Your task to perform on an android device: Show the shopping cart on bestbuy. Search for "usb-a" on bestbuy, select the first entry, add it to the cart, then select checkout. Image 0: 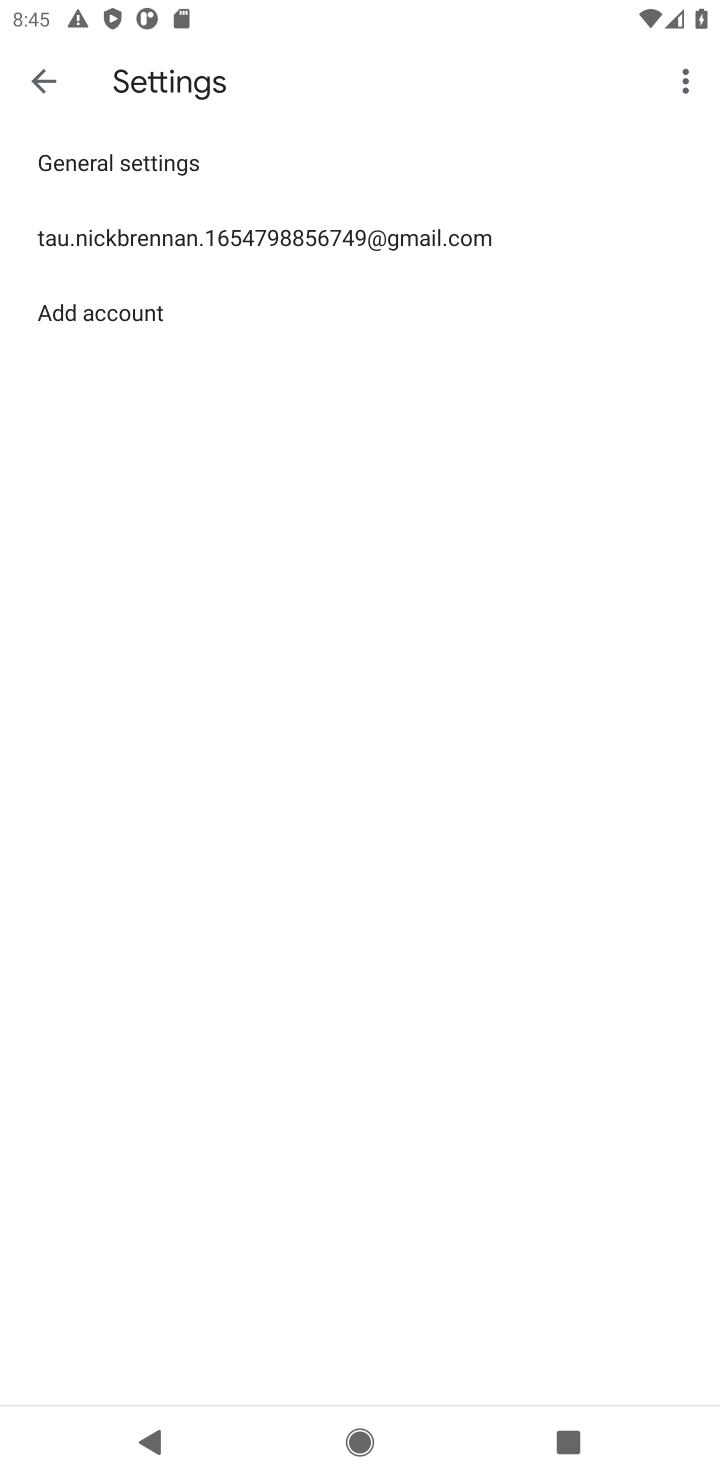
Step 0: press home button
Your task to perform on an android device: Show the shopping cart on bestbuy. Search for "usb-a" on bestbuy, select the first entry, add it to the cart, then select checkout. Image 1: 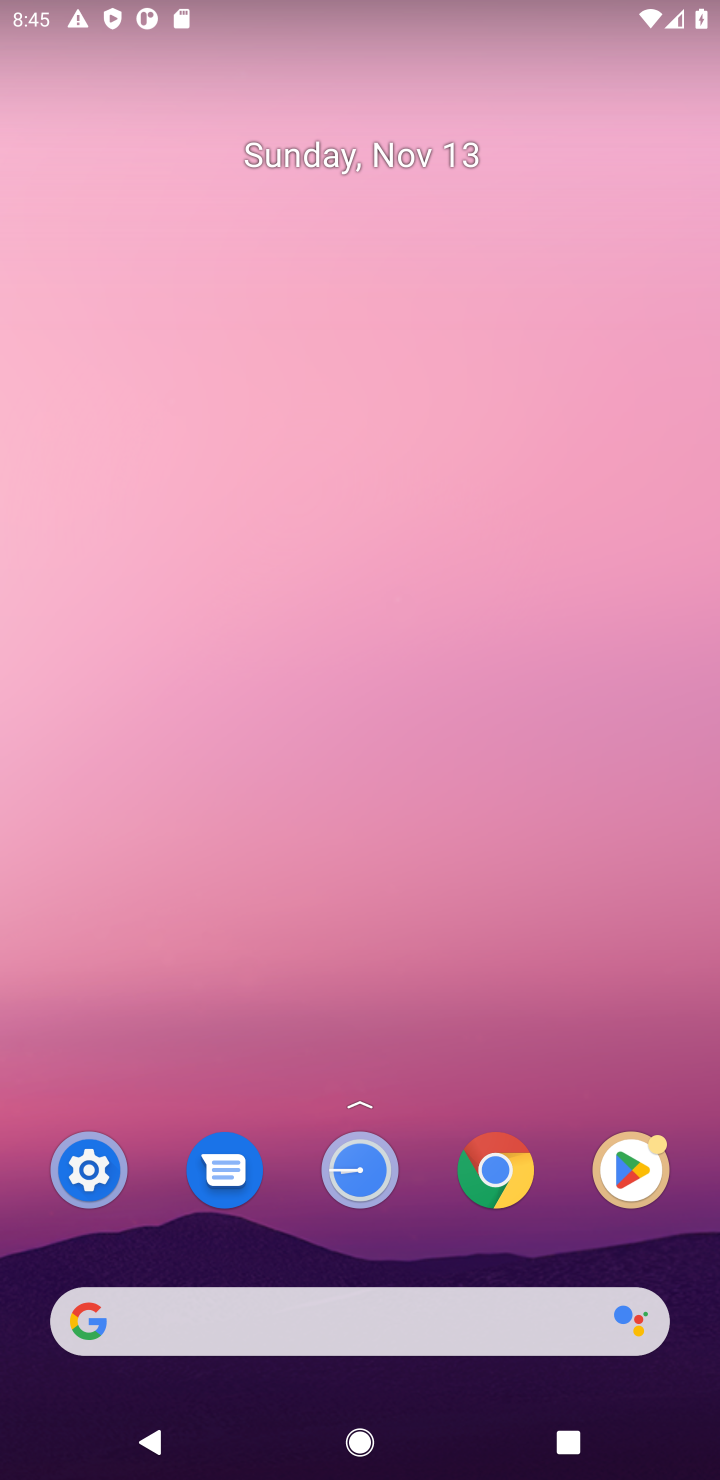
Step 1: click (318, 1326)
Your task to perform on an android device: Show the shopping cart on bestbuy. Search for "usb-a" on bestbuy, select the first entry, add it to the cart, then select checkout. Image 2: 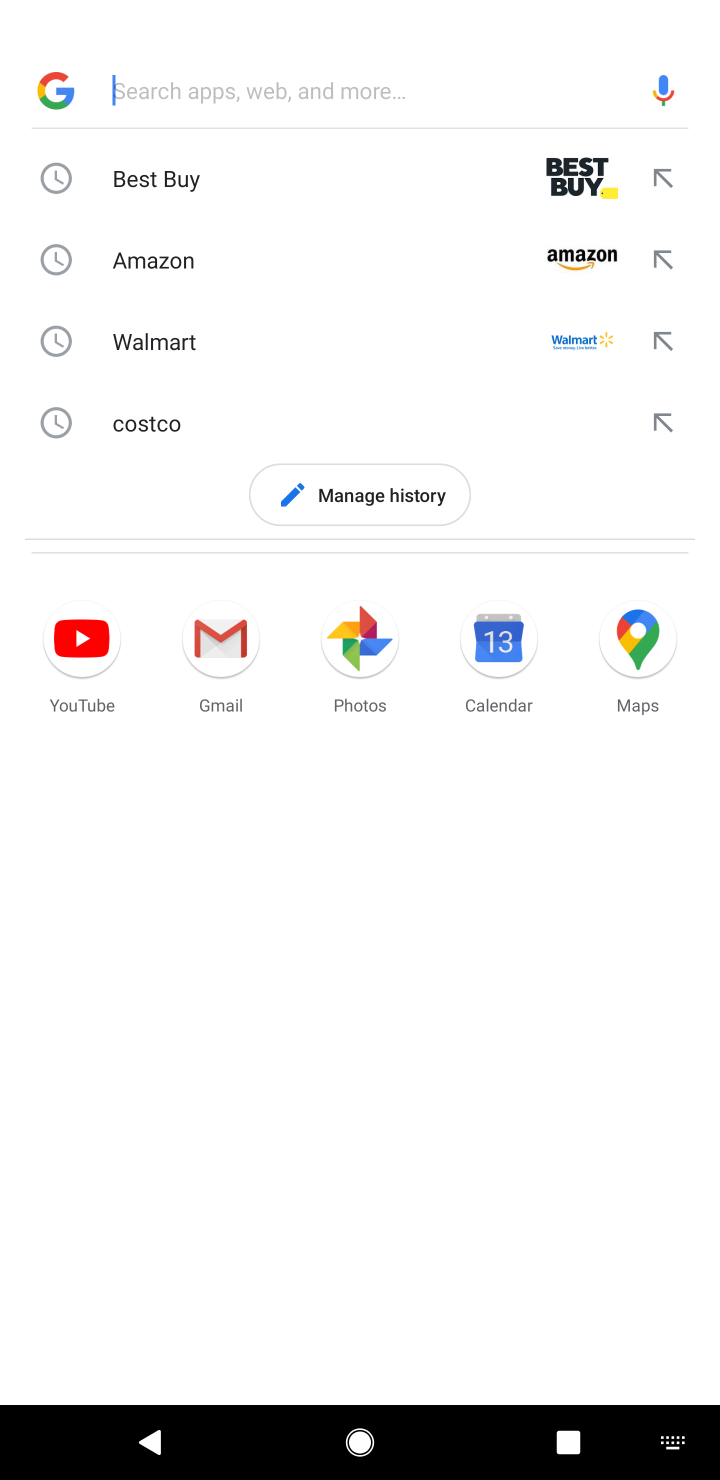
Step 2: click (251, 172)
Your task to perform on an android device: Show the shopping cart on bestbuy. Search for "usb-a" on bestbuy, select the first entry, add it to the cart, then select checkout. Image 3: 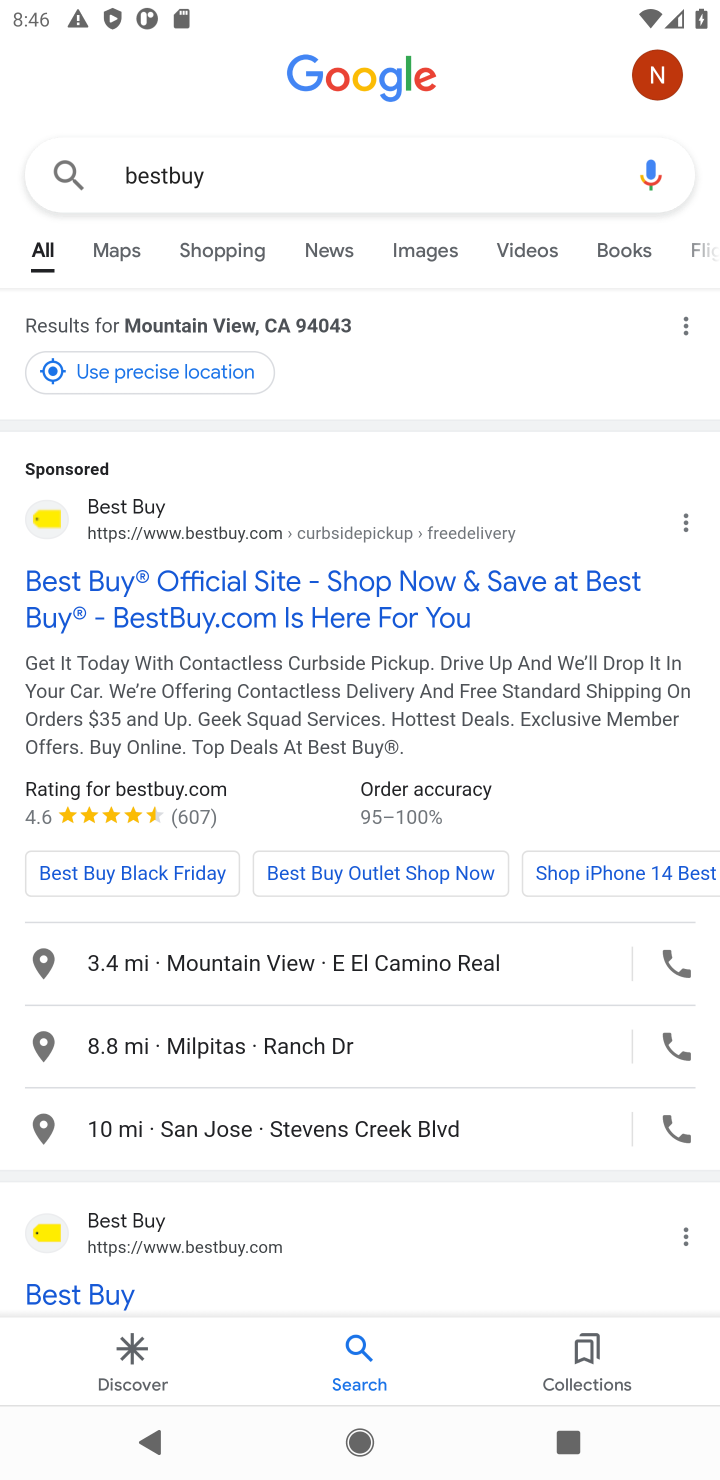
Step 3: click (116, 605)
Your task to perform on an android device: Show the shopping cart on bestbuy. Search for "usb-a" on bestbuy, select the first entry, add it to the cart, then select checkout. Image 4: 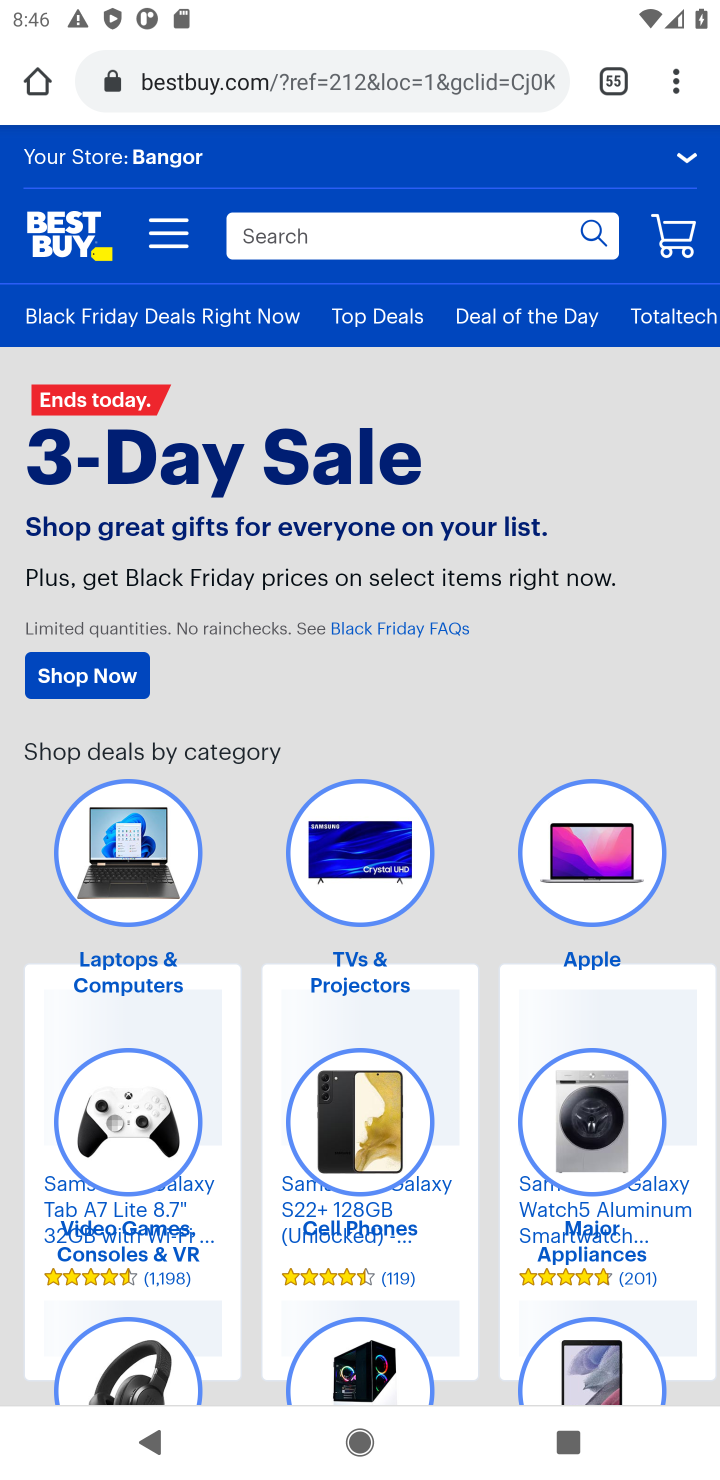
Step 4: click (367, 234)
Your task to perform on an android device: Show the shopping cart on bestbuy. Search for "usb-a" on bestbuy, select the first entry, add it to the cart, then select checkout. Image 5: 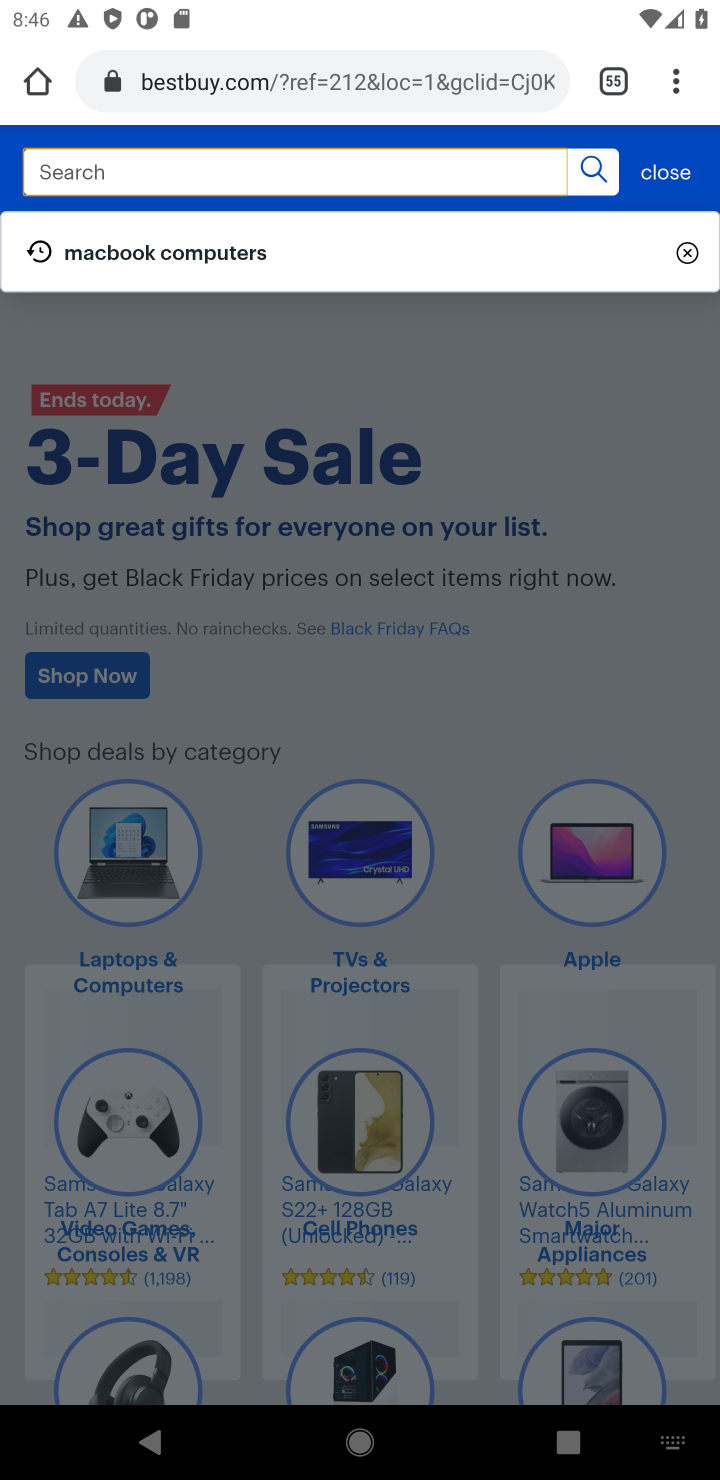
Step 5: type "usb-a "
Your task to perform on an android device: Show the shopping cart on bestbuy. Search for "usb-a" on bestbuy, select the first entry, add it to the cart, then select checkout. Image 6: 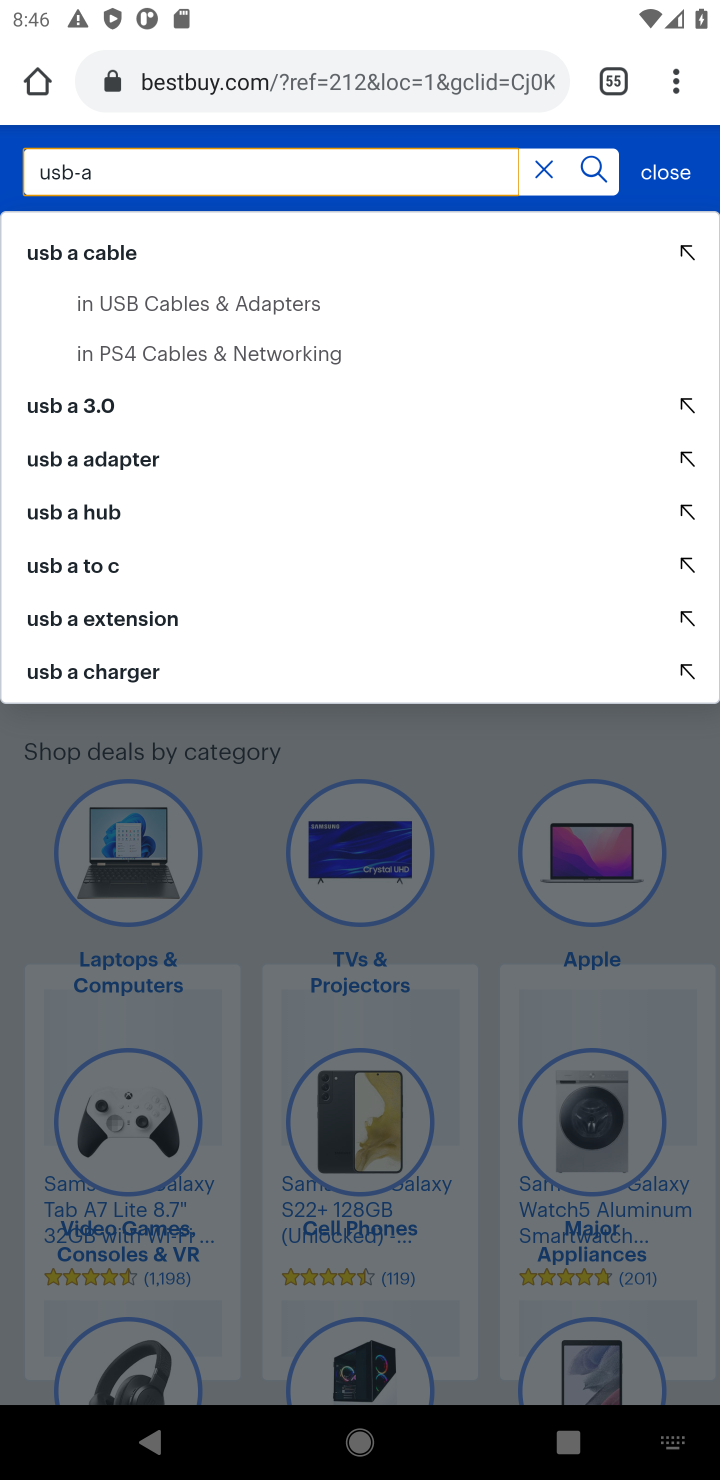
Step 6: click (101, 268)
Your task to perform on an android device: Show the shopping cart on bestbuy. Search for "usb-a" on bestbuy, select the first entry, add it to the cart, then select checkout. Image 7: 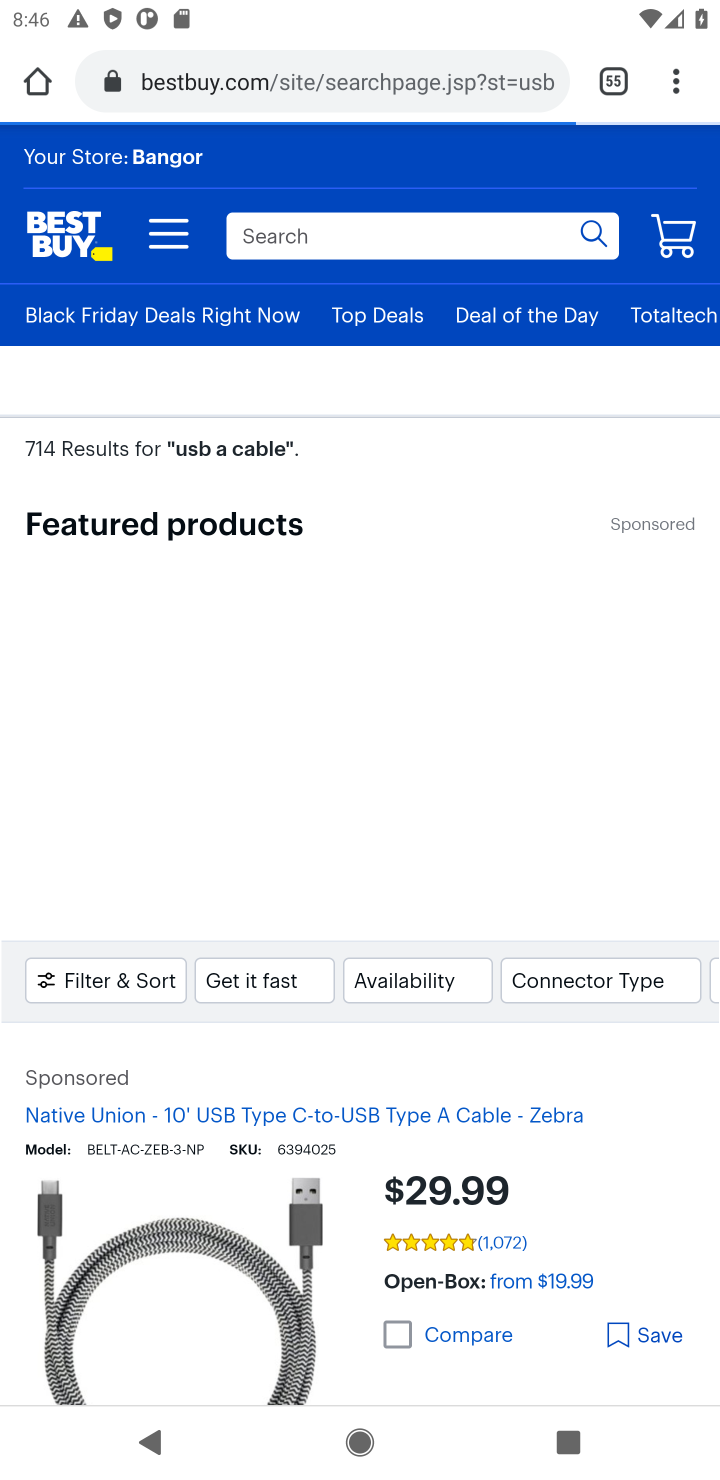
Step 7: task complete